Your task to perform on an android device: Open Google Maps Image 0: 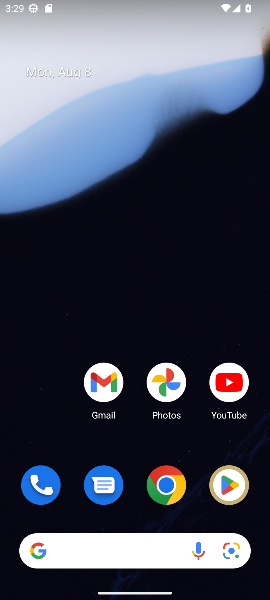
Step 0: drag from (179, 544) to (50, 81)
Your task to perform on an android device: Open Google Maps Image 1: 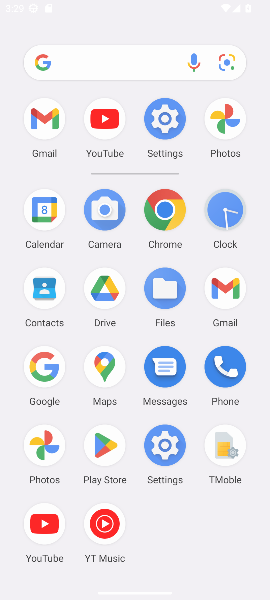
Step 1: drag from (133, 409) to (114, 69)
Your task to perform on an android device: Open Google Maps Image 2: 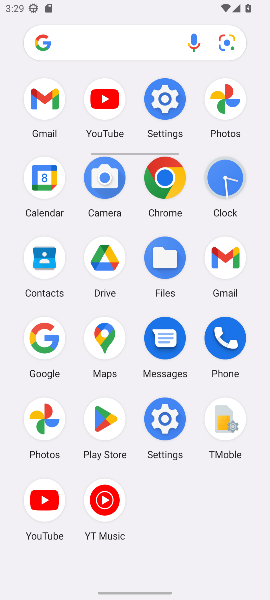
Step 2: drag from (115, 436) to (78, 110)
Your task to perform on an android device: Open Google Maps Image 3: 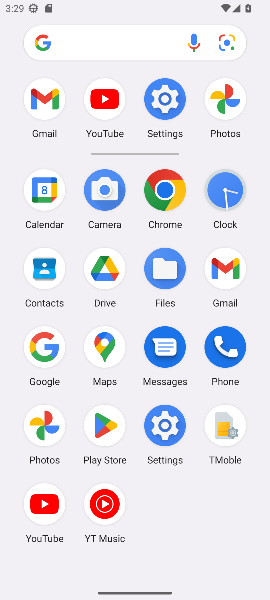
Step 3: click (109, 354)
Your task to perform on an android device: Open Google Maps Image 4: 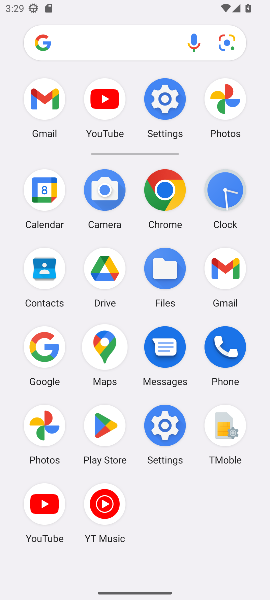
Step 4: click (107, 351)
Your task to perform on an android device: Open Google Maps Image 5: 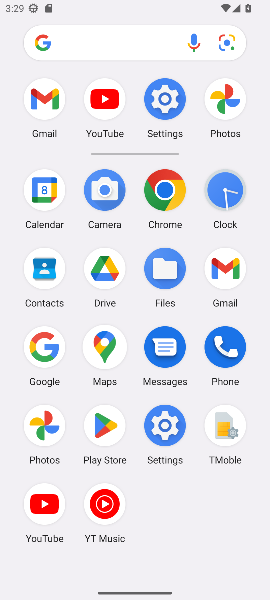
Step 5: click (106, 350)
Your task to perform on an android device: Open Google Maps Image 6: 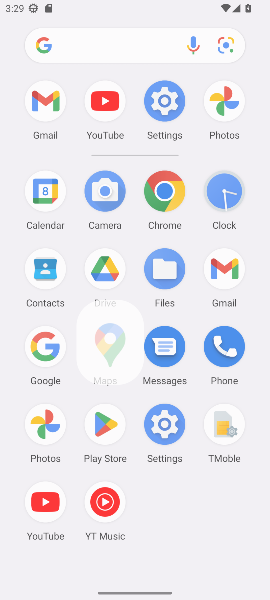
Step 6: click (105, 349)
Your task to perform on an android device: Open Google Maps Image 7: 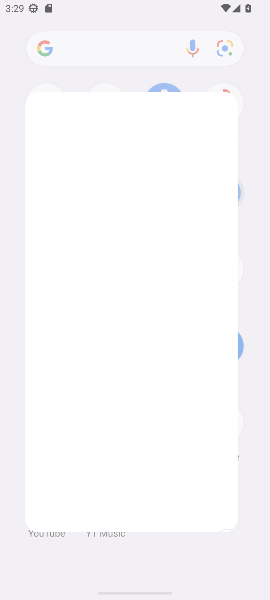
Step 7: click (106, 348)
Your task to perform on an android device: Open Google Maps Image 8: 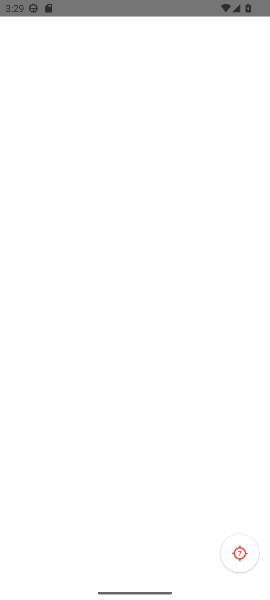
Step 8: click (111, 345)
Your task to perform on an android device: Open Google Maps Image 9: 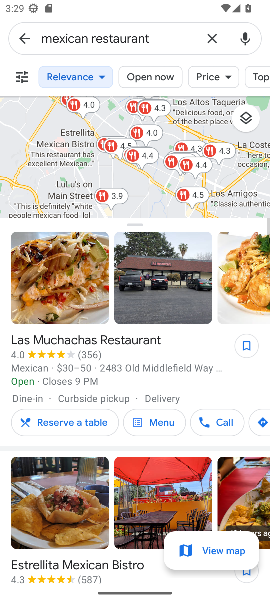
Step 9: task complete